Your task to perform on an android device: change the clock display to analog Image 0: 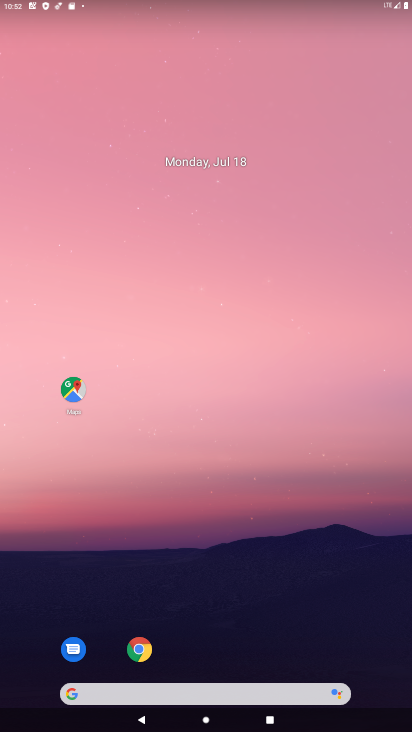
Step 0: drag from (112, 721) to (324, 117)
Your task to perform on an android device: change the clock display to analog Image 1: 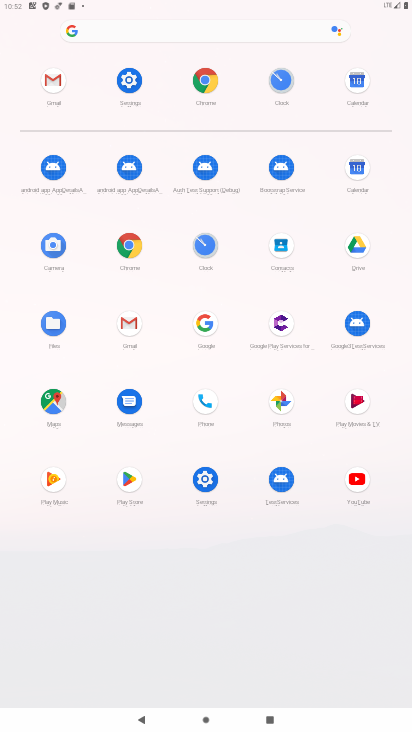
Step 1: click (201, 245)
Your task to perform on an android device: change the clock display to analog Image 2: 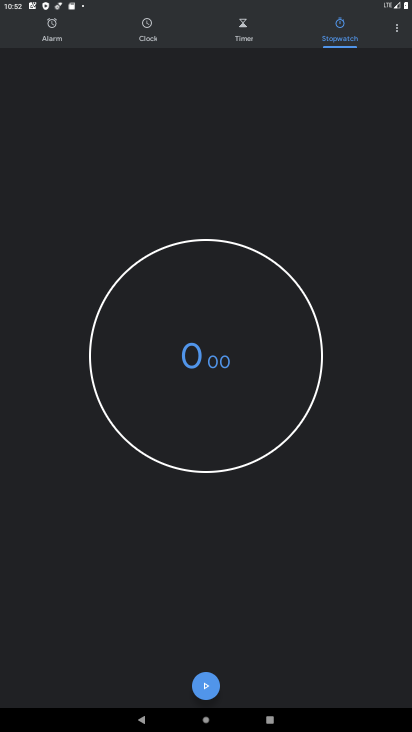
Step 2: click (396, 24)
Your task to perform on an android device: change the clock display to analog Image 3: 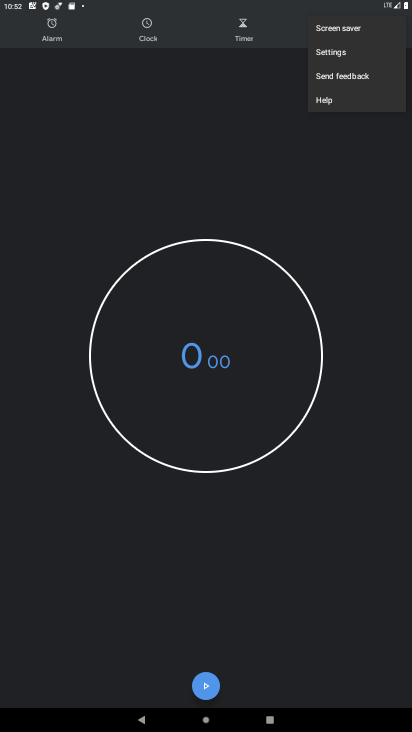
Step 3: click (334, 54)
Your task to perform on an android device: change the clock display to analog Image 4: 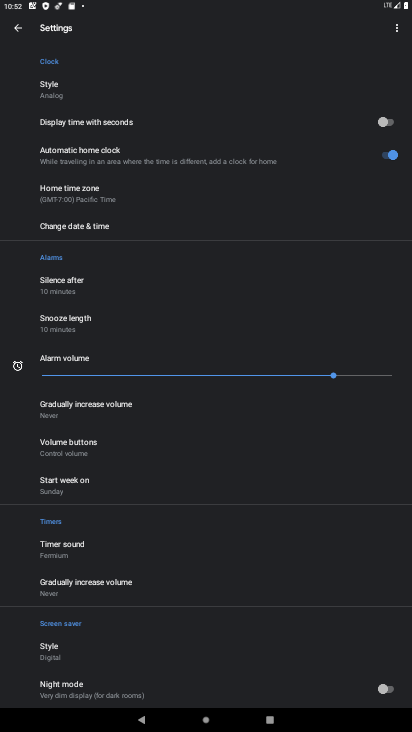
Step 4: click (71, 86)
Your task to perform on an android device: change the clock display to analog Image 5: 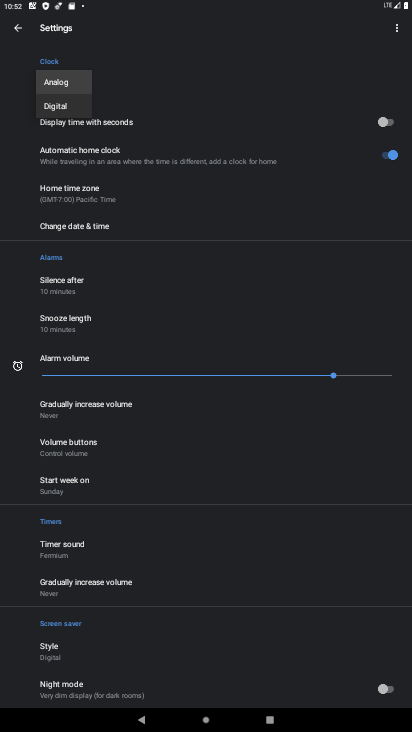
Step 5: click (71, 82)
Your task to perform on an android device: change the clock display to analog Image 6: 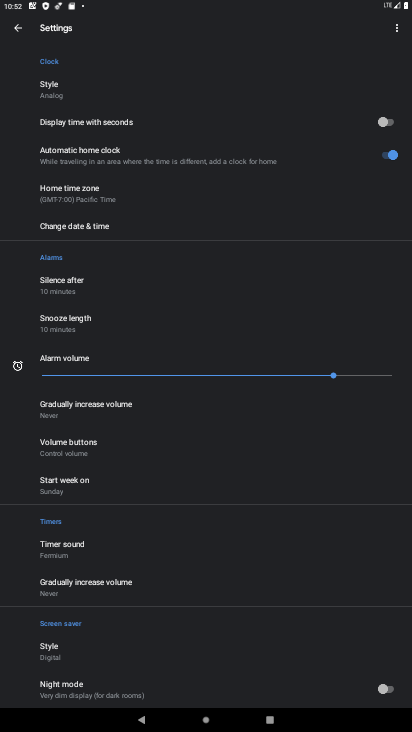
Step 6: task complete